Your task to perform on an android device: Show me the alarms in the clock app Image 0: 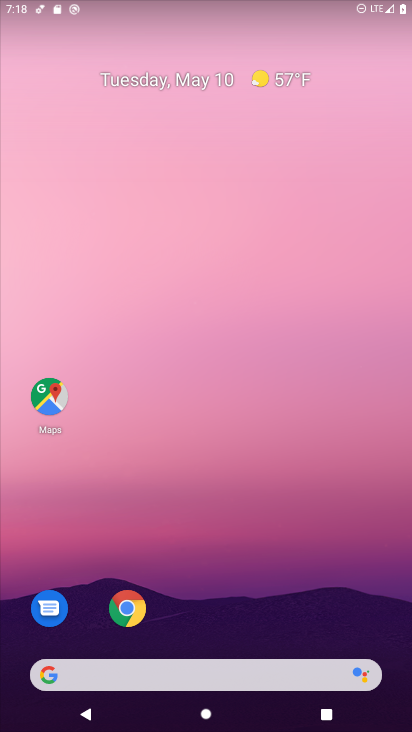
Step 0: drag from (308, 583) to (298, 20)
Your task to perform on an android device: Show me the alarms in the clock app Image 1: 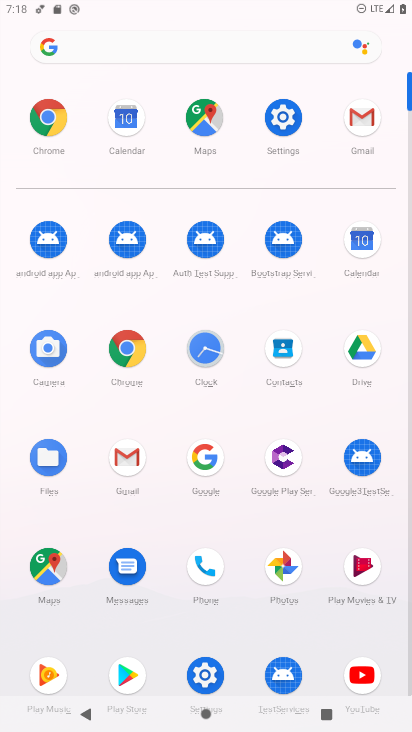
Step 1: click (204, 345)
Your task to perform on an android device: Show me the alarms in the clock app Image 2: 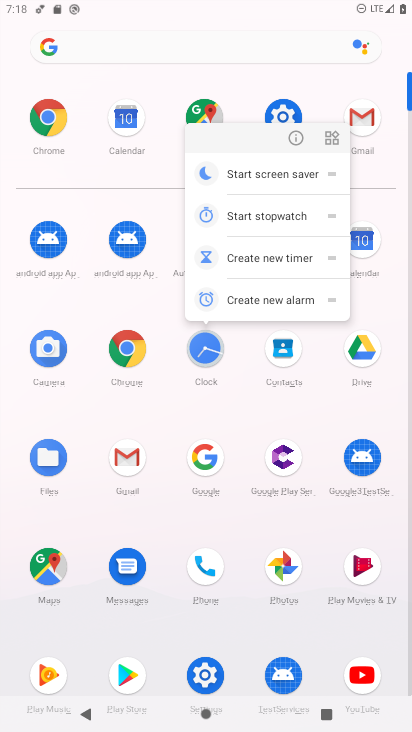
Step 2: click (204, 345)
Your task to perform on an android device: Show me the alarms in the clock app Image 3: 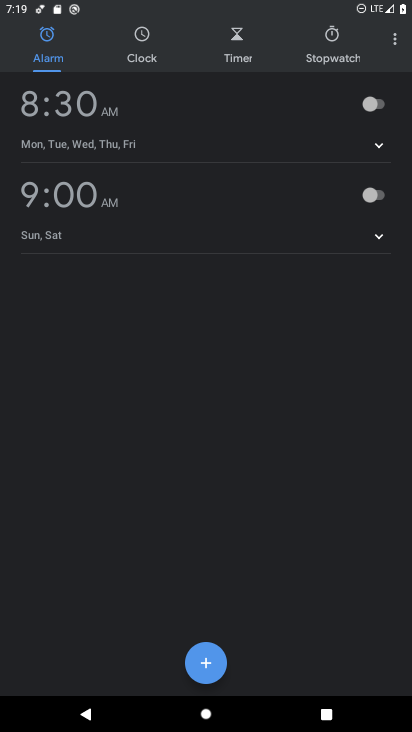
Step 3: task complete